Your task to perform on an android device: change text size in settings app Image 0: 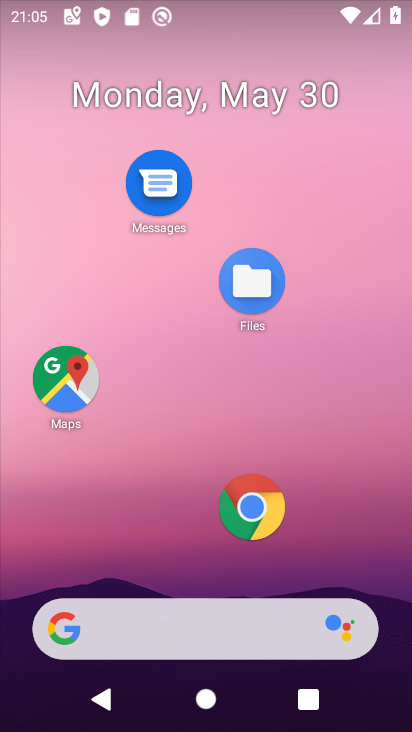
Step 0: drag from (202, 556) to (196, 249)
Your task to perform on an android device: change text size in settings app Image 1: 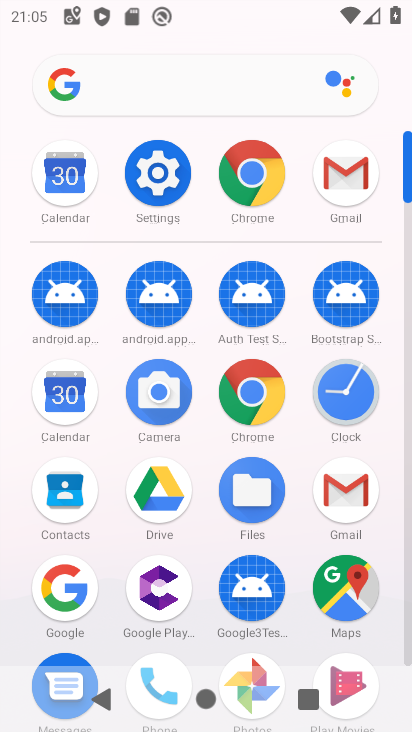
Step 1: drag from (215, 615) to (225, 386)
Your task to perform on an android device: change text size in settings app Image 2: 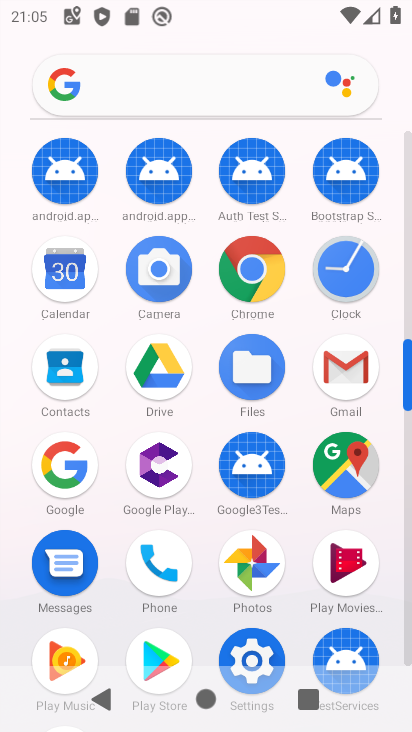
Step 2: click (253, 649)
Your task to perform on an android device: change text size in settings app Image 3: 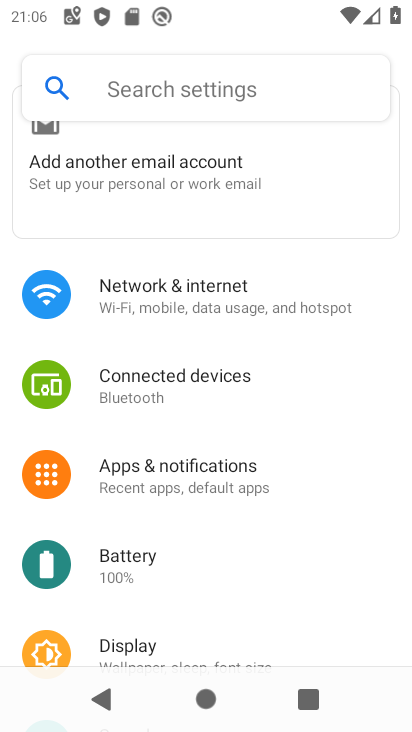
Step 3: click (133, 646)
Your task to perform on an android device: change text size in settings app Image 4: 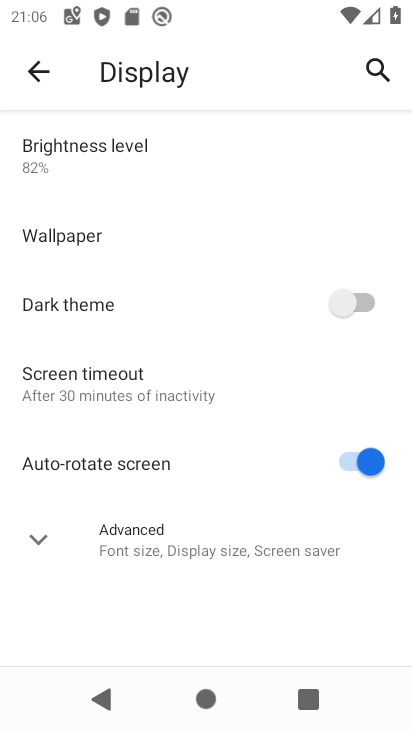
Step 4: click (133, 534)
Your task to perform on an android device: change text size in settings app Image 5: 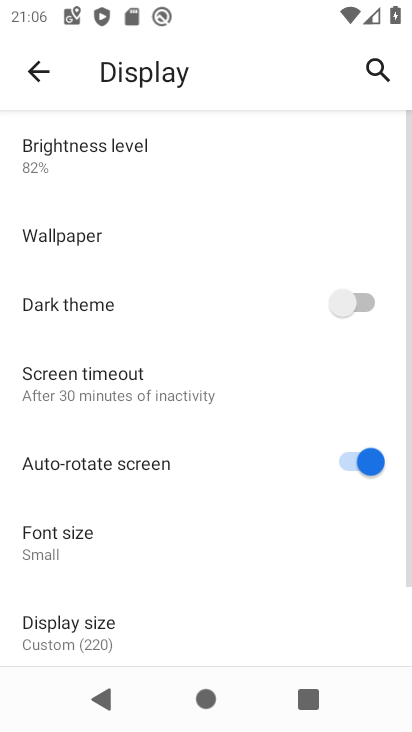
Step 5: click (43, 537)
Your task to perform on an android device: change text size in settings app Image 6: 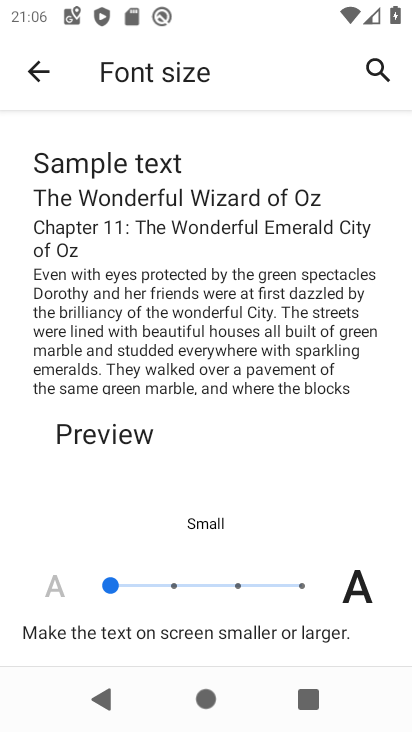
Step 6: click (174, 585)
Your task to perform on an android device: change text size in settings app Image 7: 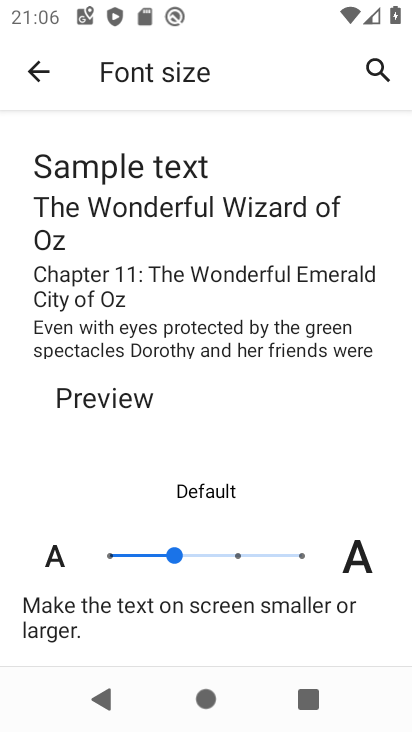
Step 7: task complete